Your task to perform on an android device: What's the price of the 1000-Watt EGO Power+ Snow Blower? Image 0: 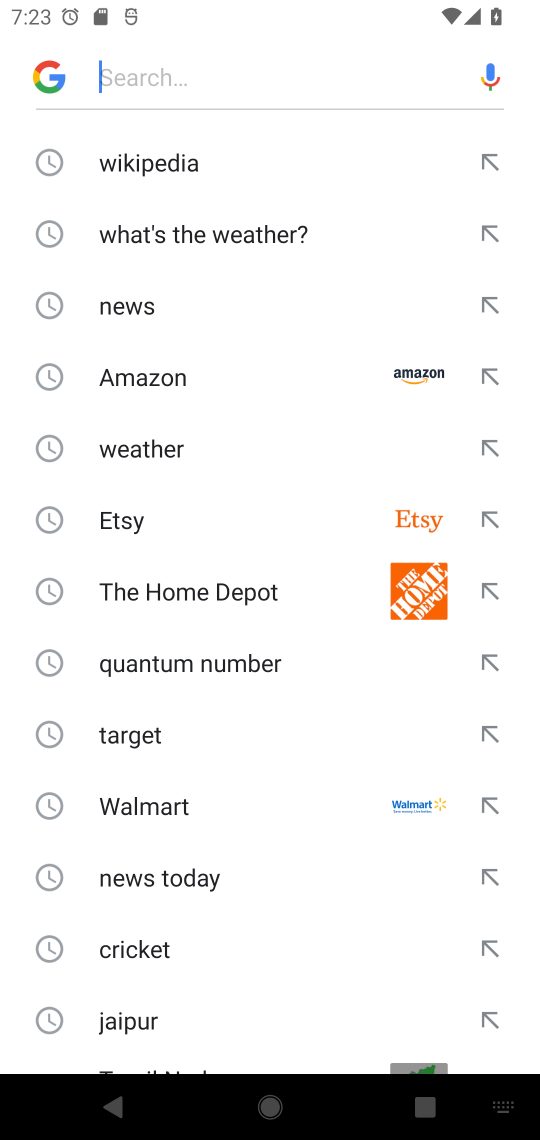
Step 0: type "the price of the 1000-Watt EGO Power+ Snow Blower"
Your task to perform on an android device: What's the price of the 1000-Watt EGO Power+ Snow Blower? Image 1: 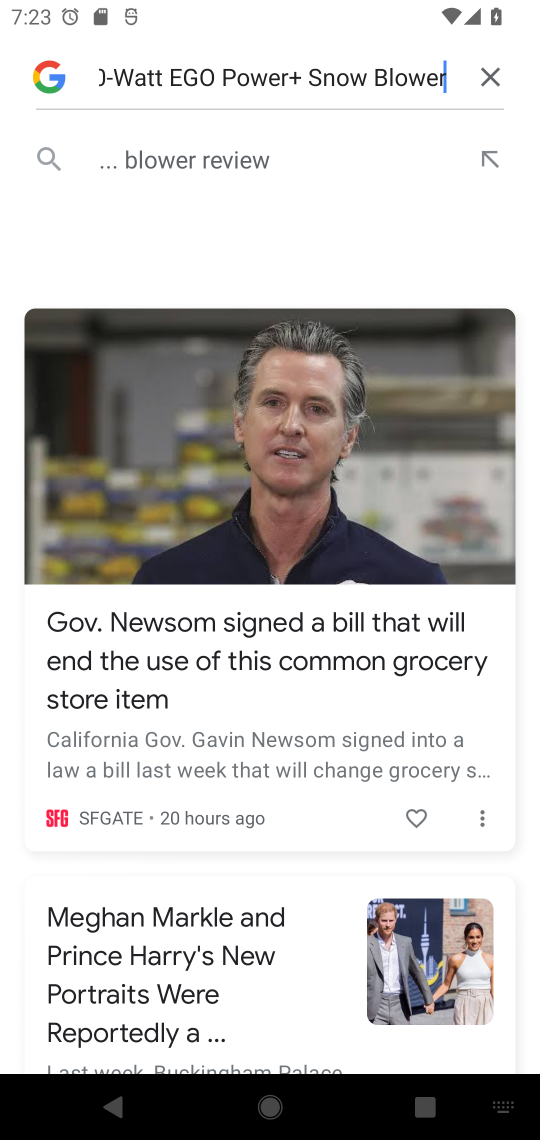
Step 1: press enter
Your task to perform on an android device: What's the price of the 1000-Watt EGO Power+ Snow Blower? Image 2: 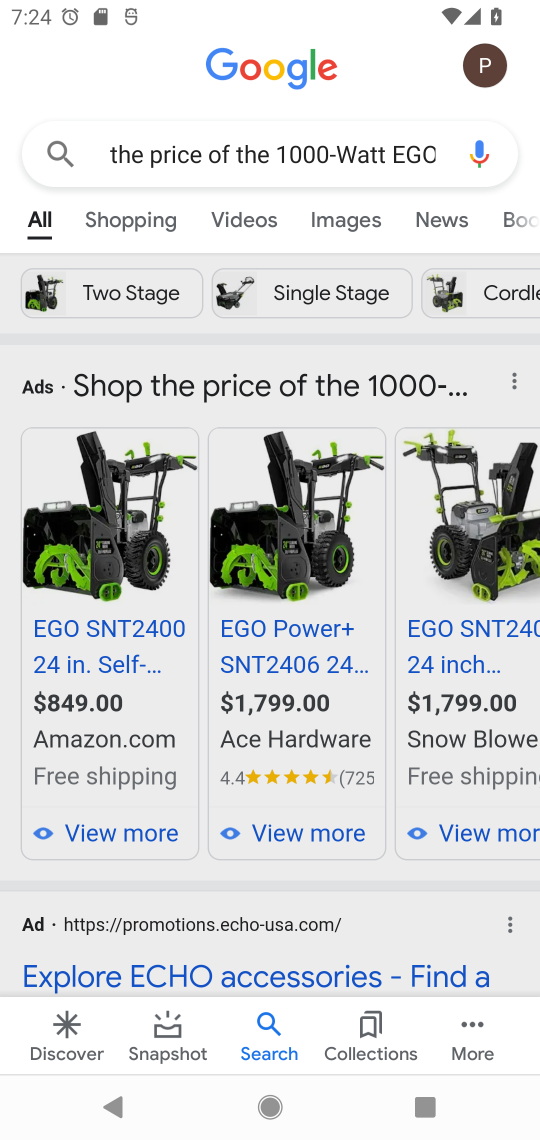
Step 2: task complete